Your task to perform on an android device: open the mobile data screen to see how much data has been used Image 0: 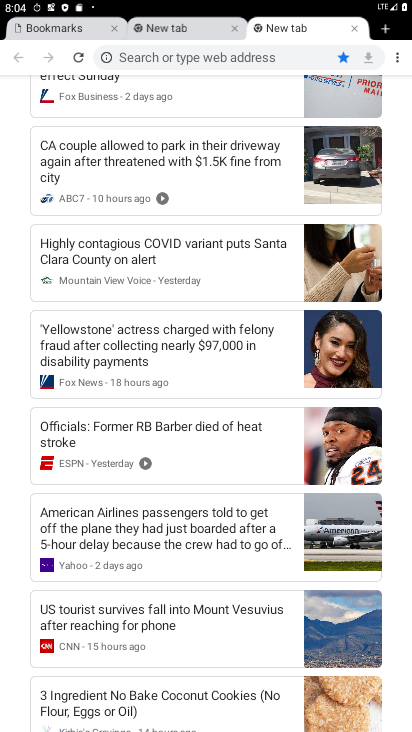
Step 0: press home button
Your task to perform on an android device: open the mobile data screen to see how much data has been used Image 1: 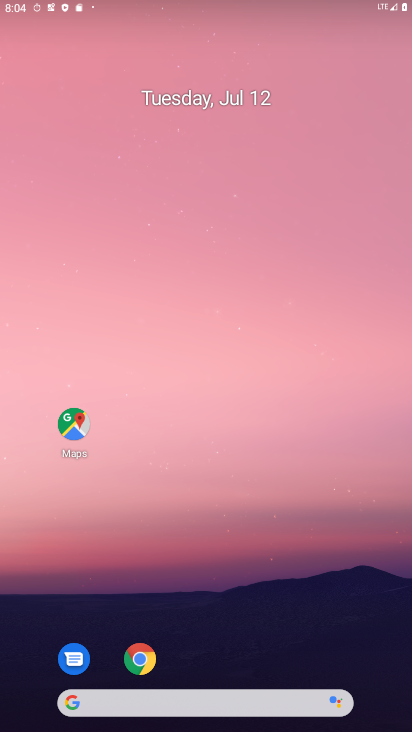
Step 1: drag from (384, 676) to (237, 5)
Your task to perform on an android device: open the mobile data screen to see how much data has been used Image 2: 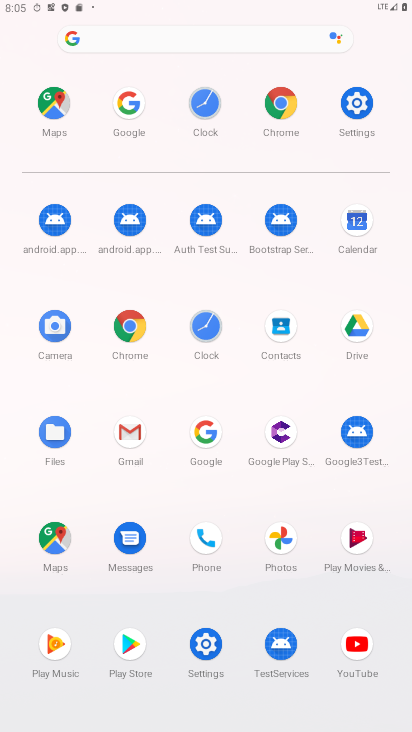
Step 2: click (353, 109)
Your task to perform on an android device: open the mobile data screen to see how much data has been used Image 3: 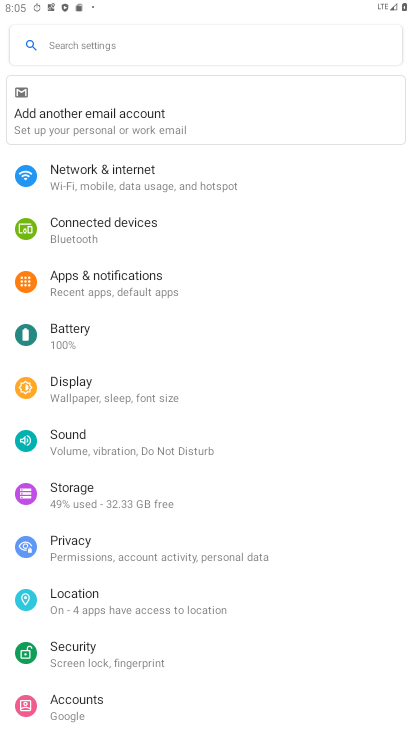
Step 3: click (158, 183)
Your task to perform on an android device: open the mobile data screen to see how much data has been used Image 4: 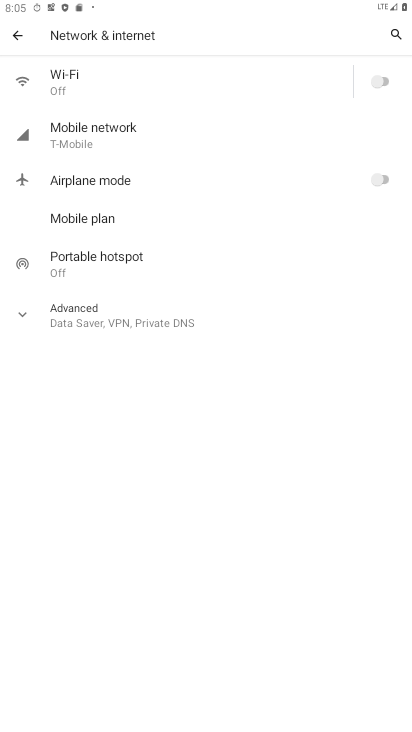
Step 4: task complete